Your task to perform on an android device: Open network settings Image 0: 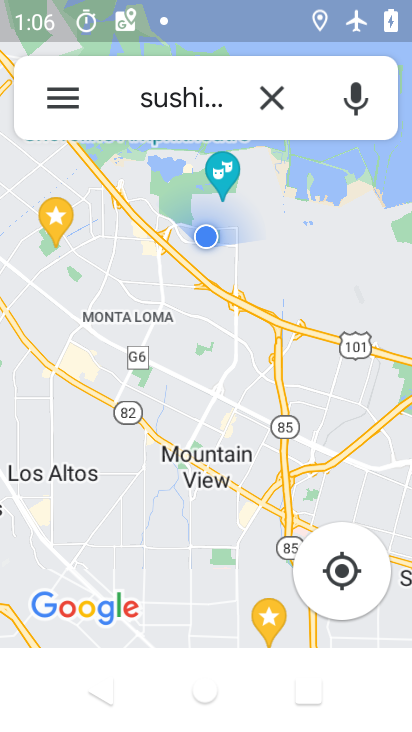
Step 0: drag from (204, 395) to (225, 101)
Your task to perform on an android device: Open network settings Image 1: 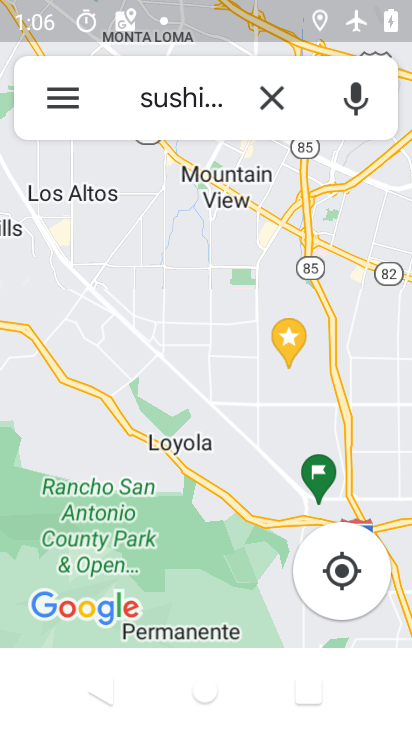
Step 1: press home button
Your task to perform on an android device: Open network settings Image 2: 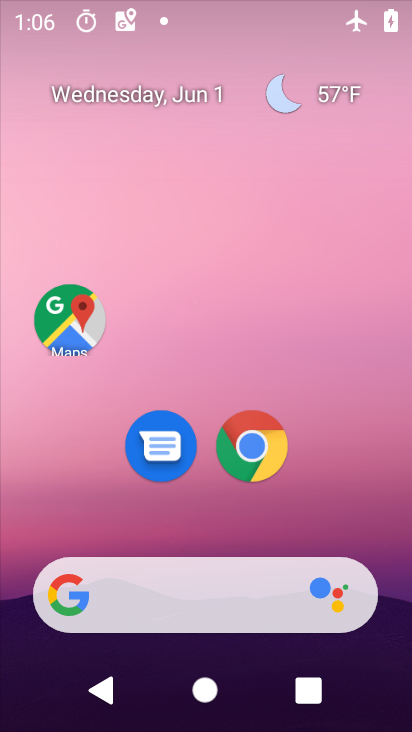
Step 2: drag from (217, 529) to (214, 96)
Your task to perform on an android device: Open network settings Image 3: 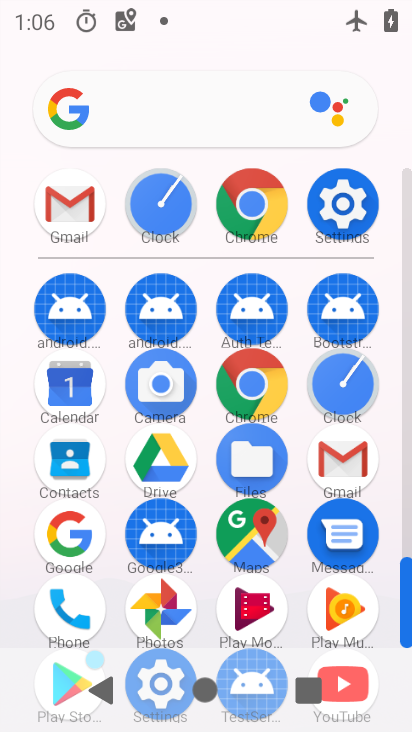
Step 3: drag from (215, 289) to (206, 110)
Your task to perform on an android device: Open network settings Image 4: 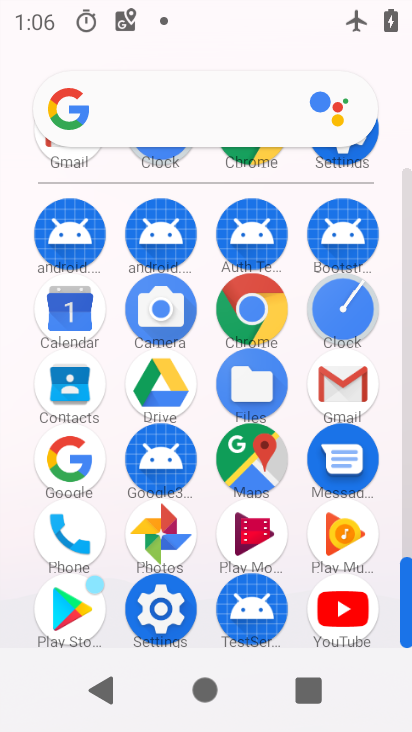
Step 4: click (161, 620)
Your task to perform on an android device: Open network settings Image 5: 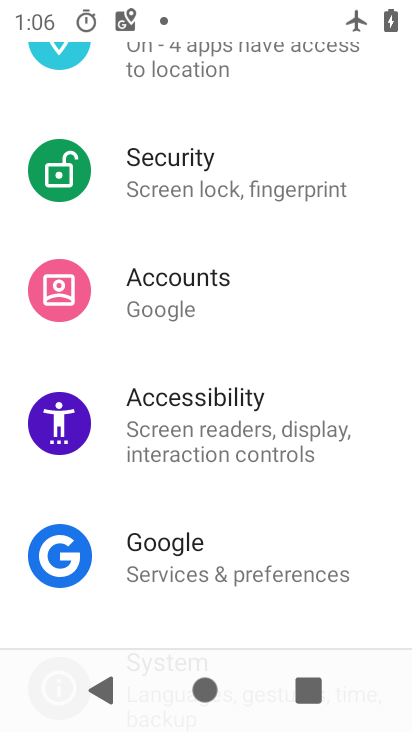
Step 5: drag from (245, 260) to (120, 722)
Your task to perform on an android device: Open network settings Image 6: 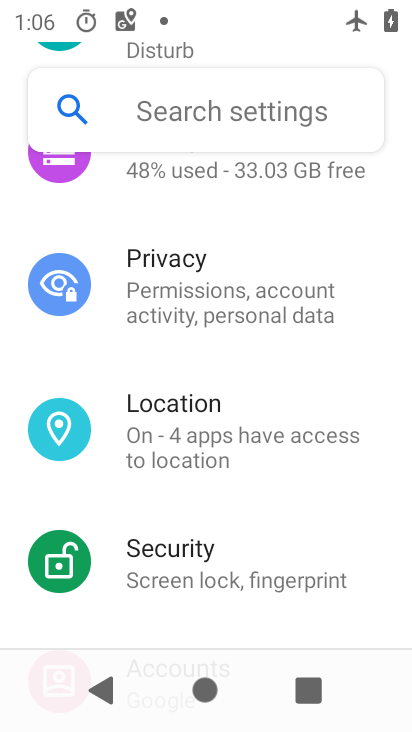
Step 6: drag from (266, 217) to (261, 727)
Your task to perform on an android device: Open network settings Image 7: 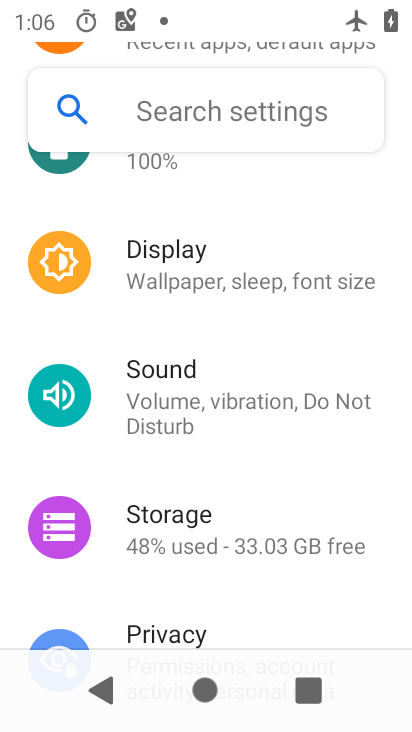
Step 7: drag from (298, 177) to (269, 711)
Your task to perform on an android device: Open network settings Image 8: 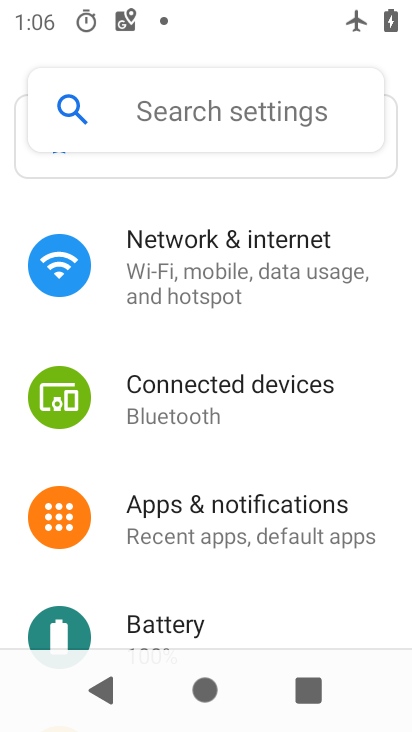
Step 8: click (269, 273)
Your task to perform on an android device: Open network settings Image 9: 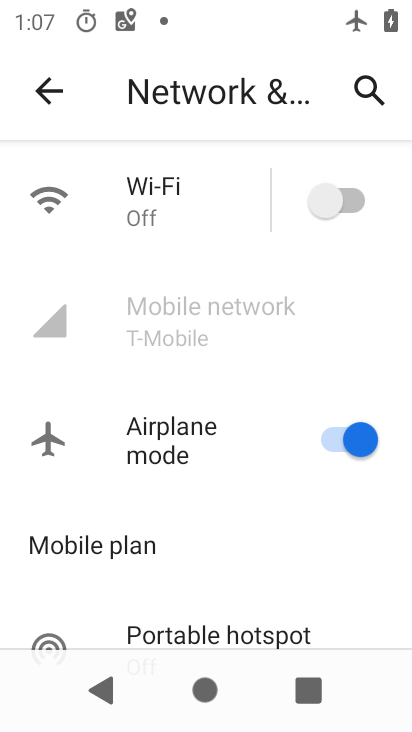
Step 9: task complete